Your task to perform on an android device: Search for hotels in Tokyo Image 0: 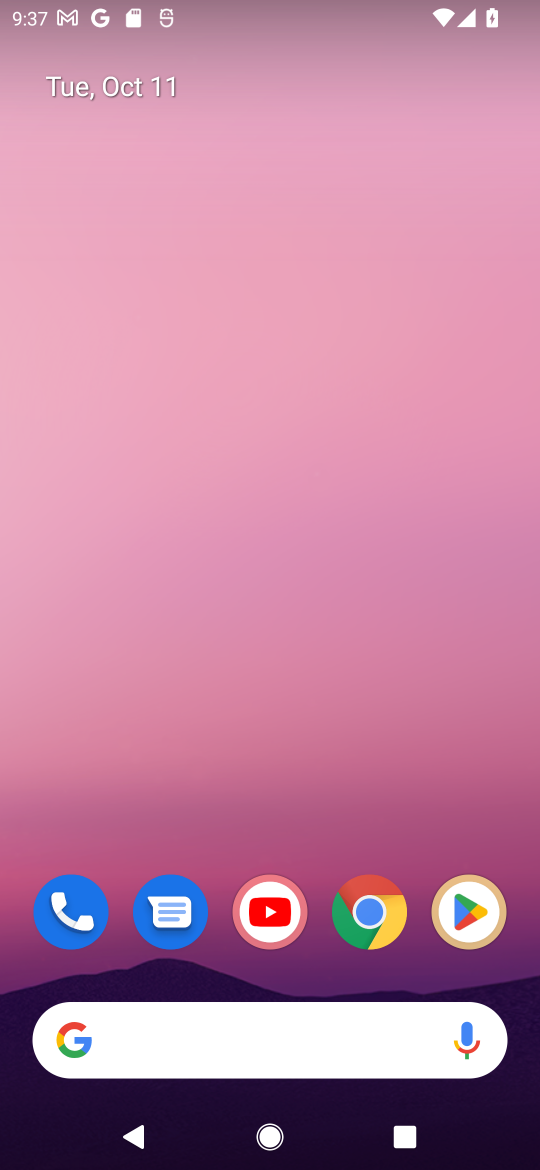
Step 0: click (367, 922)
Your task to perform on an android device: Search for hotels in Tokyo Image 1: 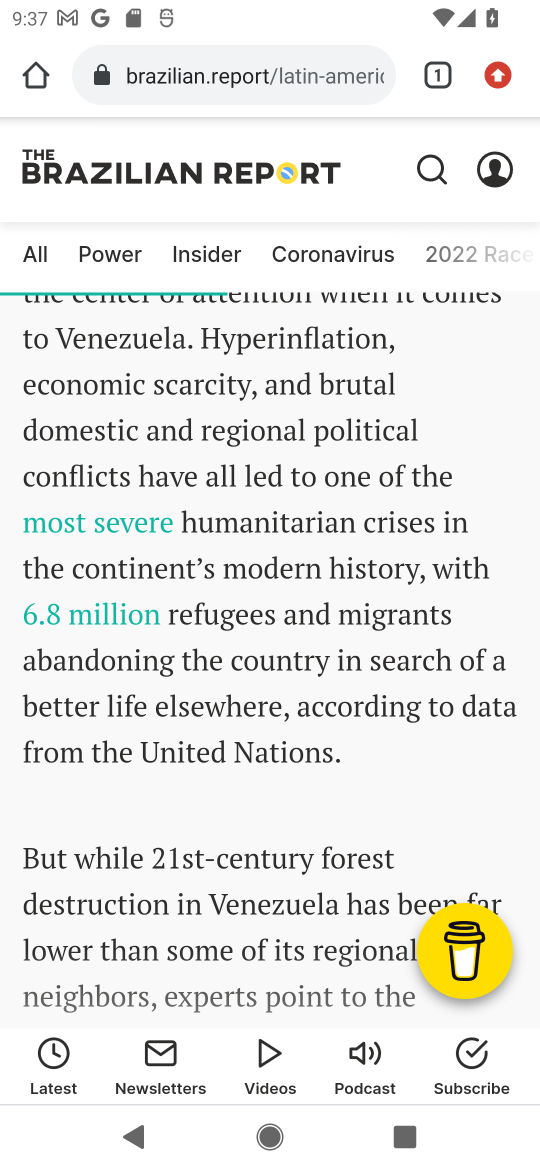
Step 1: click (209, 45)
Your task to perform on an android device: Search for hotels in Tokyo Image 2: 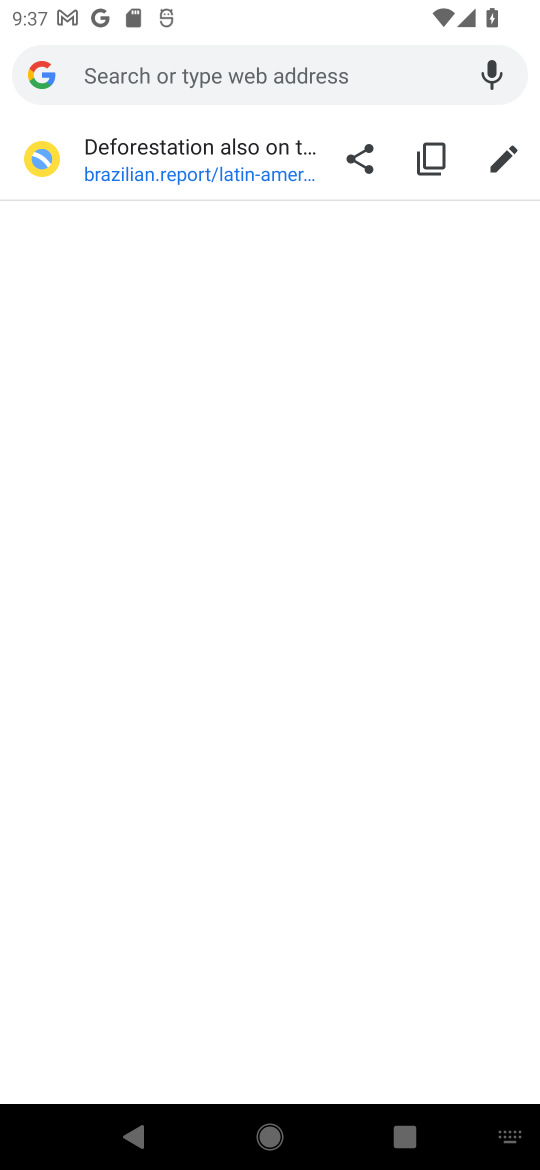
Step 2: type "hotels in Tokyo"
Your task to perform on an android device: Search for hotels in Tokyo Image 3: 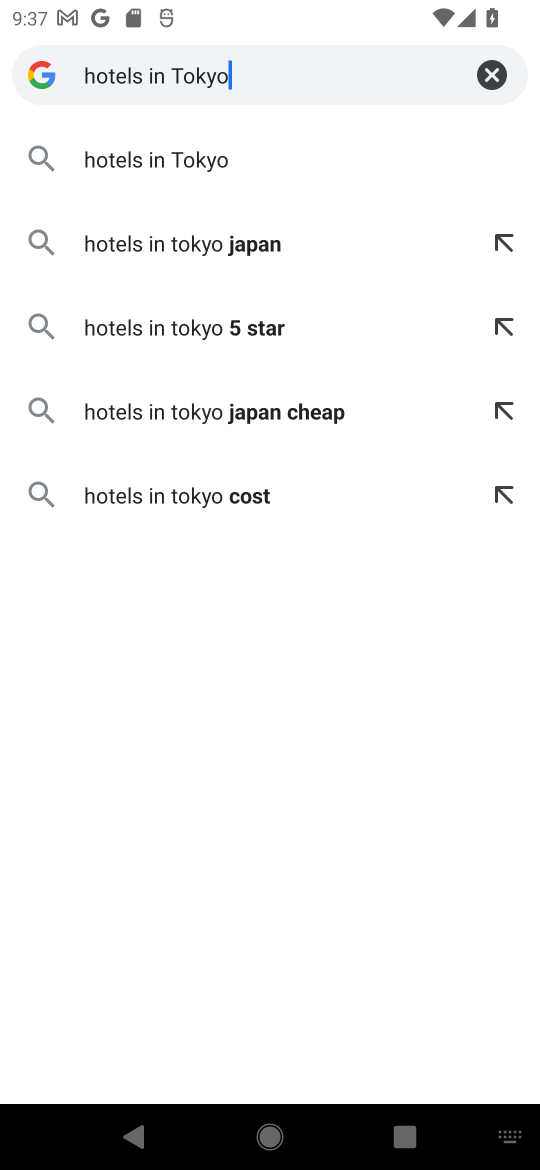
Step 3: click (125, 156)
Your task to perform on an android device: Search for hotels in Tokyo Image 4: 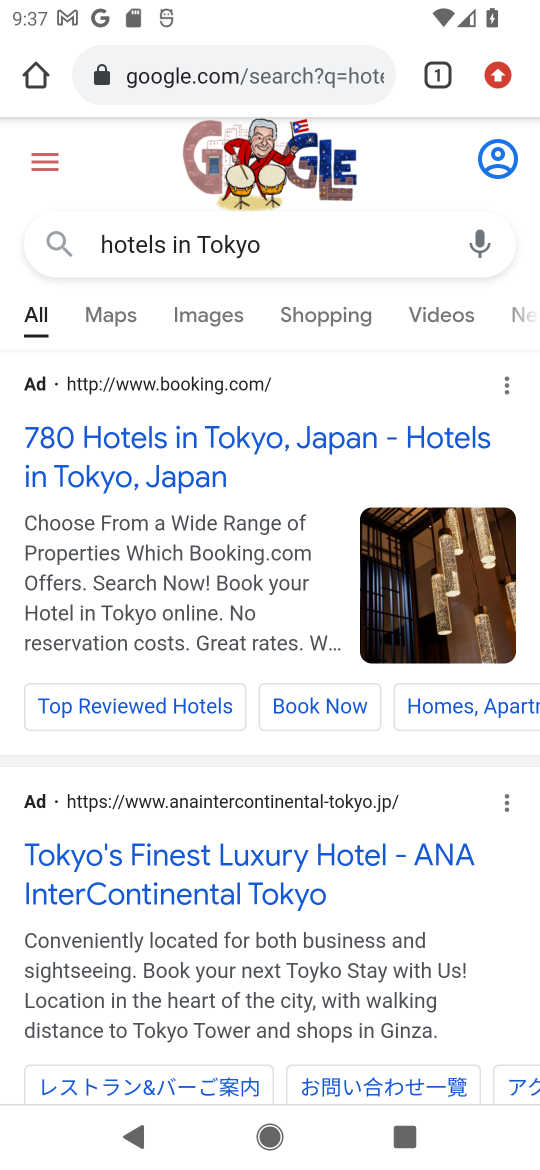
Step 4: click (97, 449)
Your task to perform on an android device: Search for hotels in Tokyo Image 5: 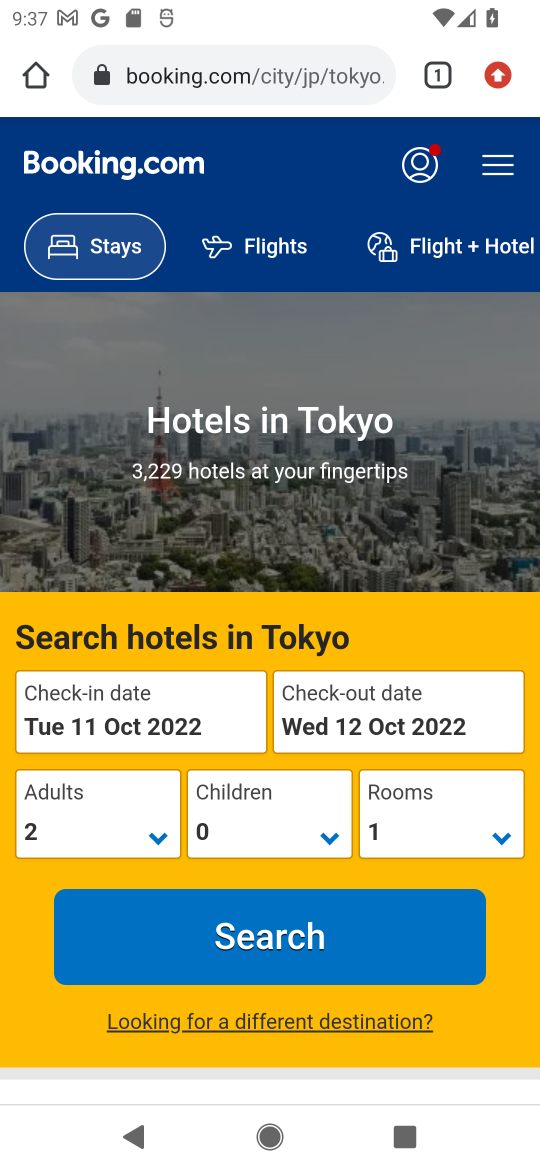
Step 5: click (278, 945)
Your task to perform on an android device: Search for hotels in Tokyo Image 6: 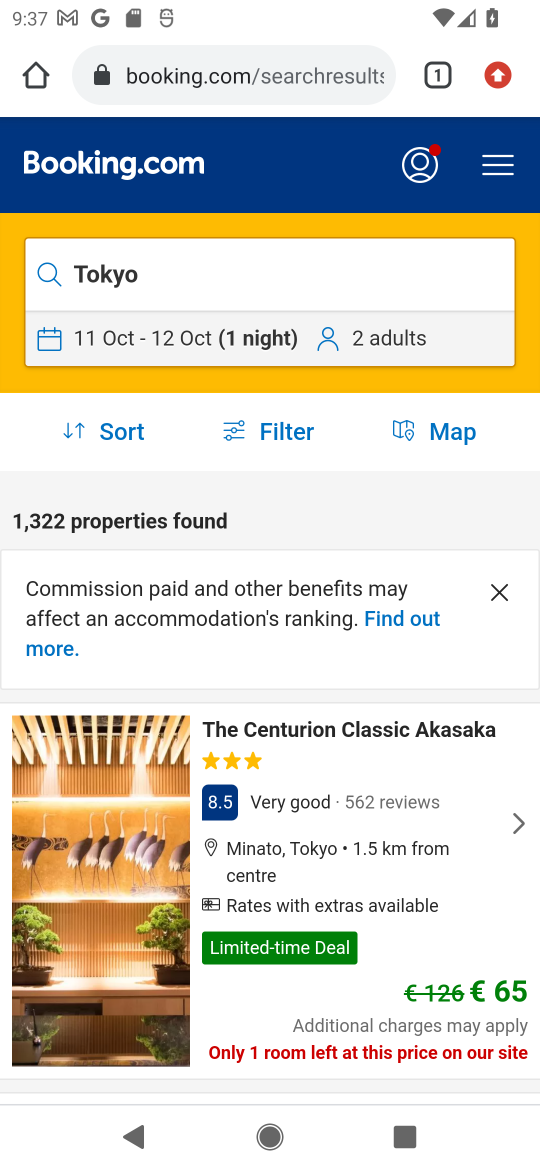
Step 6: task complete